Your task to perform on an android device: Go to Amazon Image 0: 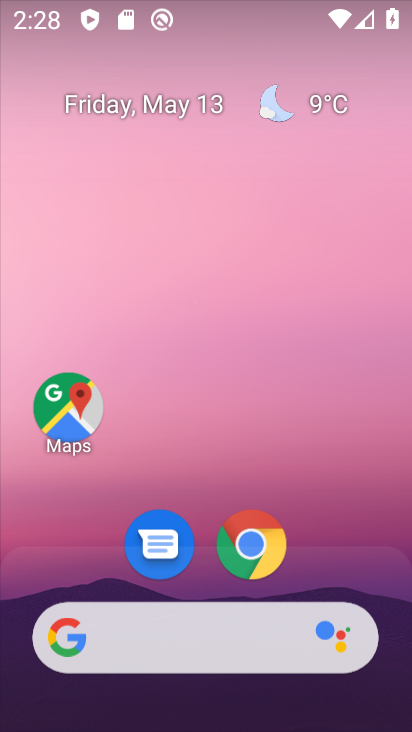
Step 0: click (263, 555)
Your task to perform on an android device: Go to Amazon Image 1: 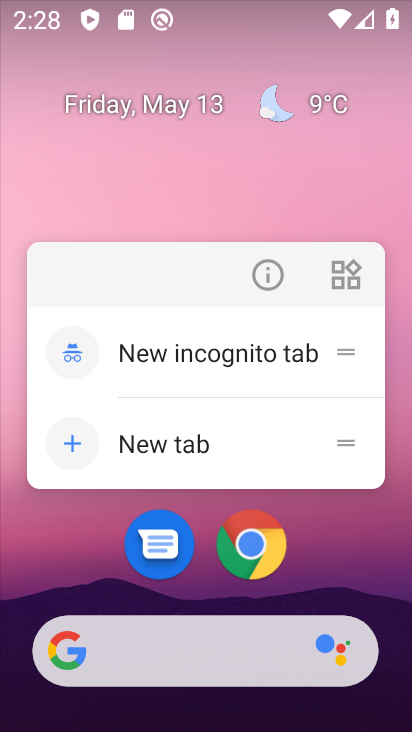
Step 1: click (263, 543)
Your task to perform on an android device: Go to Amazon Image 2: 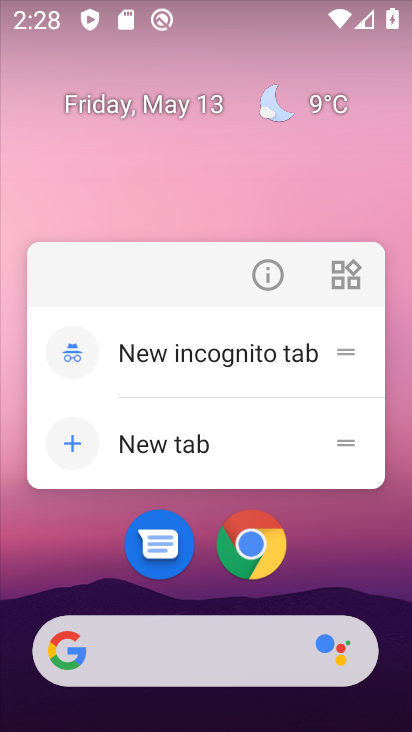
Step 2: click (253, 552)
Your task to perform on an android device: Go to Amazon Image 3: 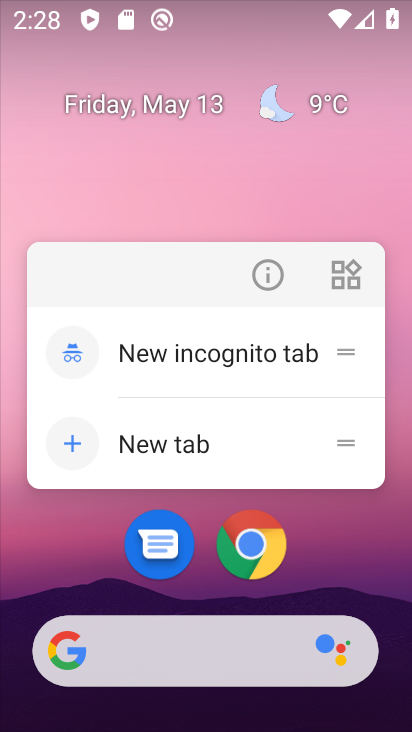
Step 3: click (253, 552)
Your task to perform on an android device: Go to Amazon Image 4: 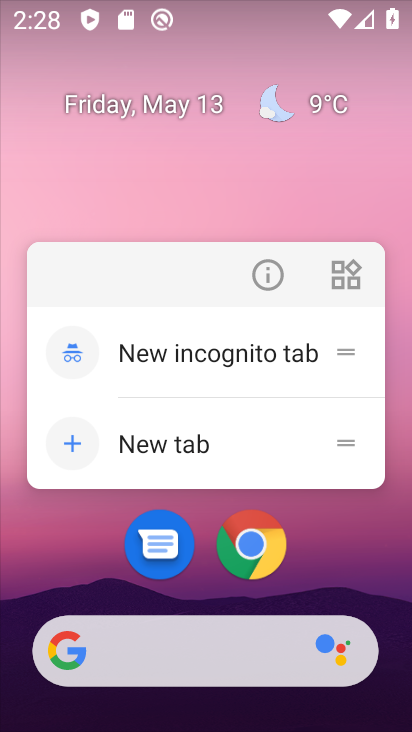
Step 4: click (250, 570)
Your task to perform on an android device: Go to Amazon Image 5: 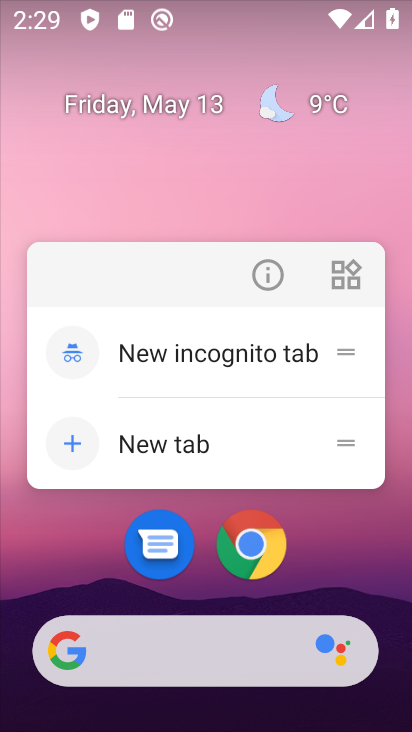
Step 5: click (265, 542)
Your task to perform on an android device: Go to Amazon Image 6: 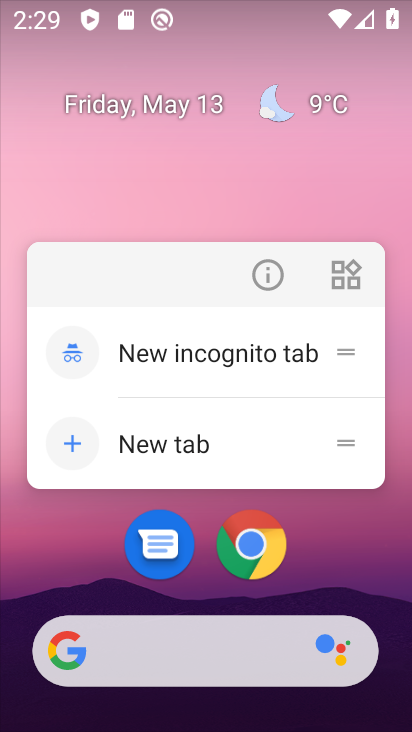
Step 6: click (256, 544)
Your task to perform on an android device: Go to Amazon Image 7: 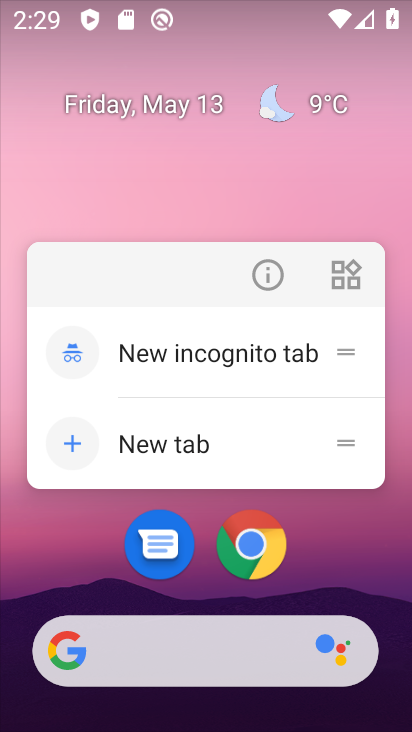
Step 7: click (266, 557)
Your task to perform on an android device: Go to Amazon Image 8: 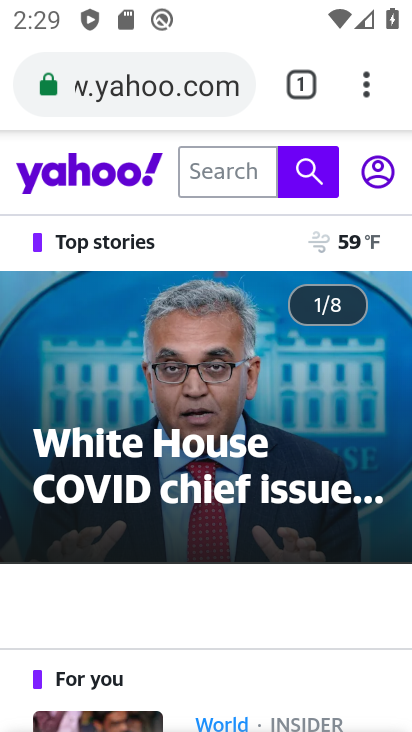
Step 8: drag from (381, 76) to (366, 147)
Your task to perform on an android device: Go to Amazon Image 9: 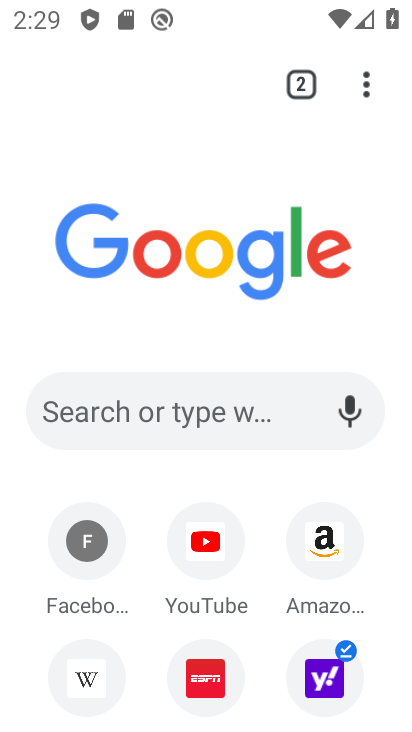
Step 9: click (342, 555)
Your task to perform on an android device: Go to Amazon Image 10: 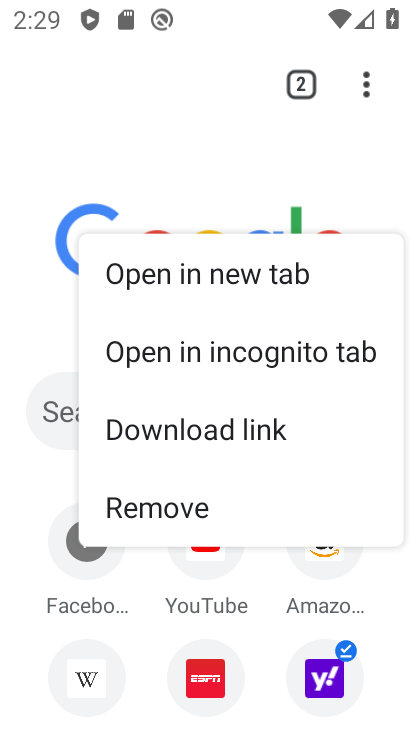
Step 10: click (332, 562)
Your task to perform on an android device: Go to Amazon Image 11: 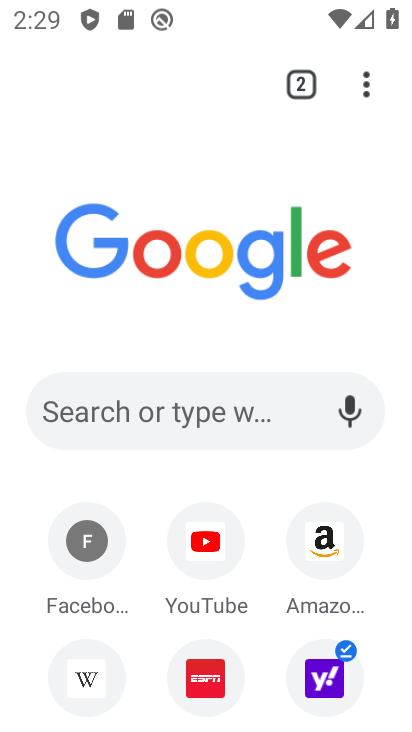
Step 11: click (325, 571)
Your task to perform on an android device: Go to Amazon Image 12: 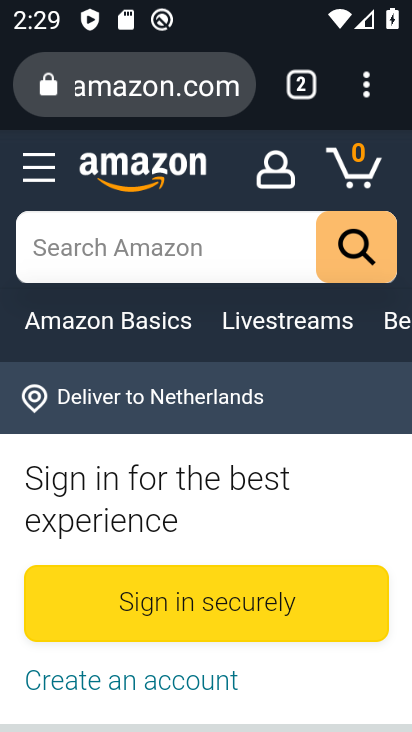
Step 12: task complete